Your task to perform on an android device: toggle sleep mode Image 0: 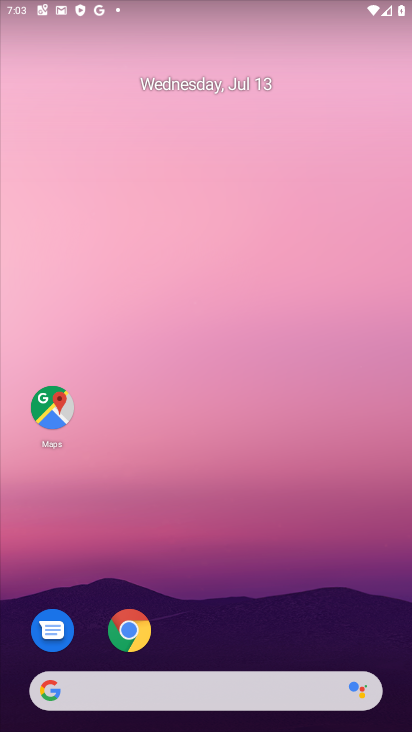
Step 0: drag from (357, 642) to (186, 4)
Your task to perform on an android device: toggle sleep mode Image 1: 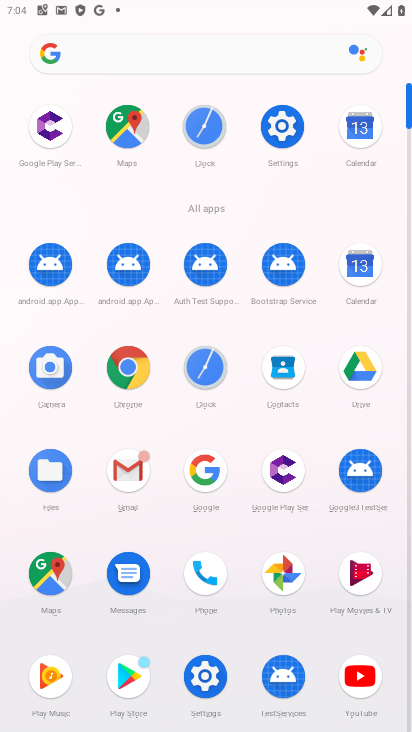
Step 1: click (280, 128)
Your task to perform on an android device: toggle sleep mode Image 2: 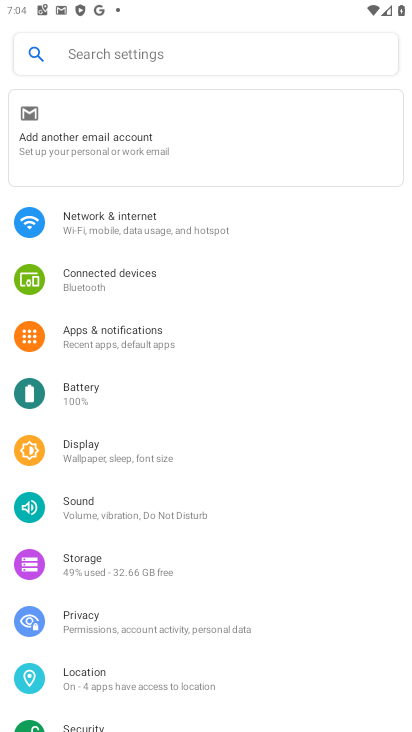
Step 2: task complete